Your task to perform on an android device: toggle sleep mode Image 0: 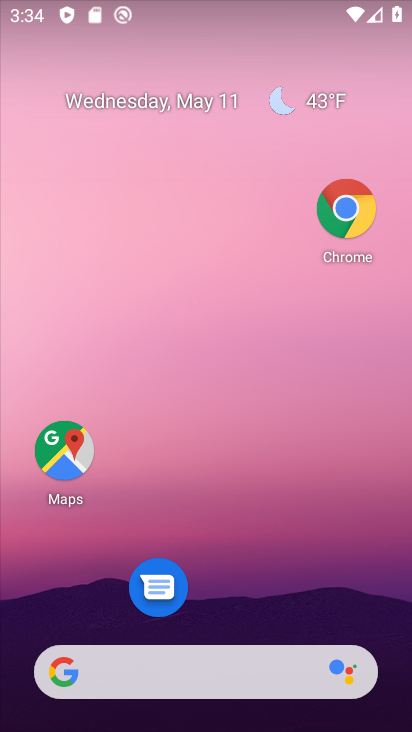
Step 0: click (349, 233)
Your task to perform on an android device: toggle sleep mode Image 1: 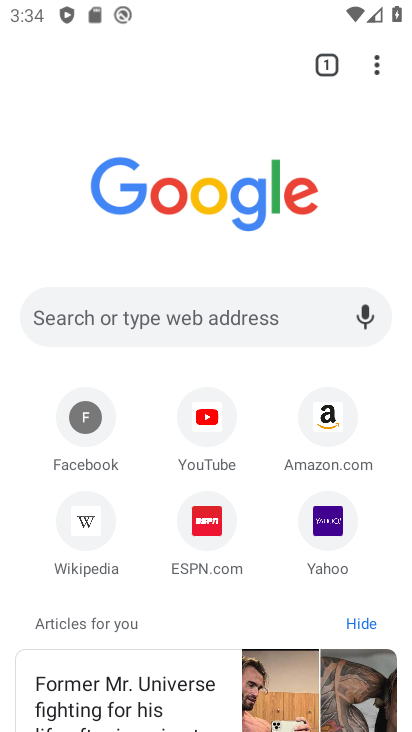
Step 1: click (387, 65)
Your task to perform on an android device: toggle sleep mode Image 2: 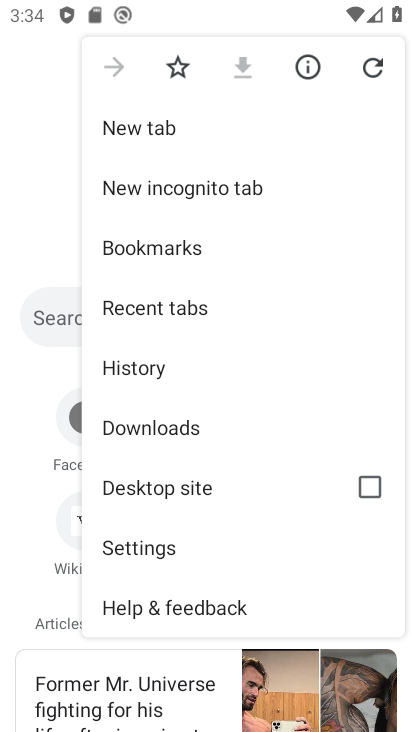
Step 2: click (239, 534)
Your task to perform on an android device: toggle sleep mode Image 3: 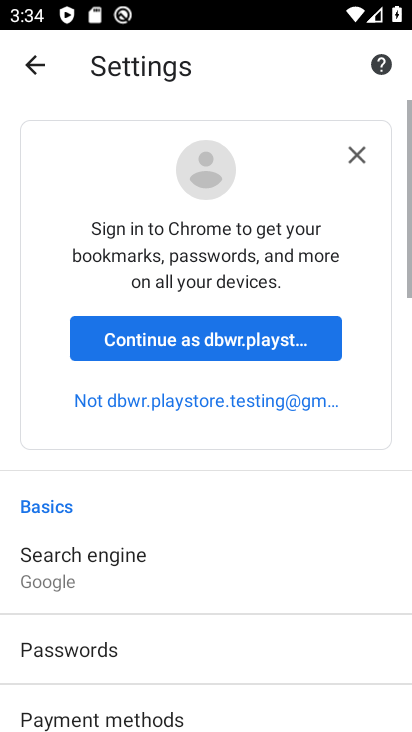
Step 3: task complete